Your task to perform on an android device: find which apps use the phone's location Image 0: 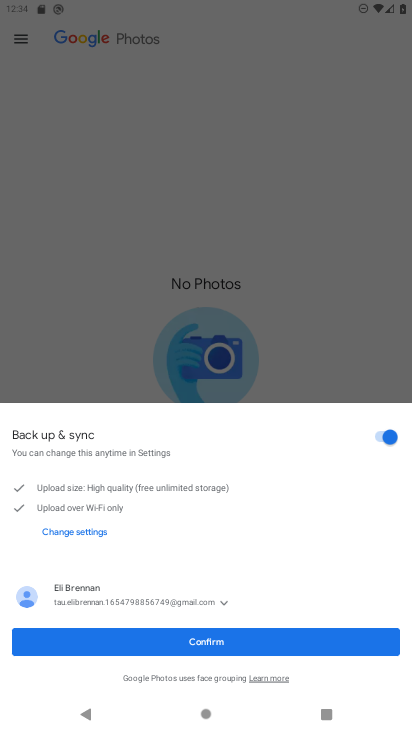
Step 0: press home button
Your task to perform on an android device: find which apps use the phone's location Image 1: 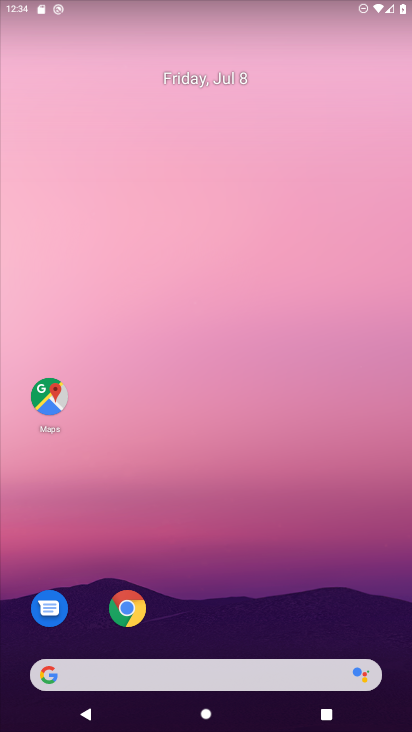
Step 1: drag from (251, 682) to (210, 42)
Your task to perform on an android device: find which apps use the phone's location Image 2: 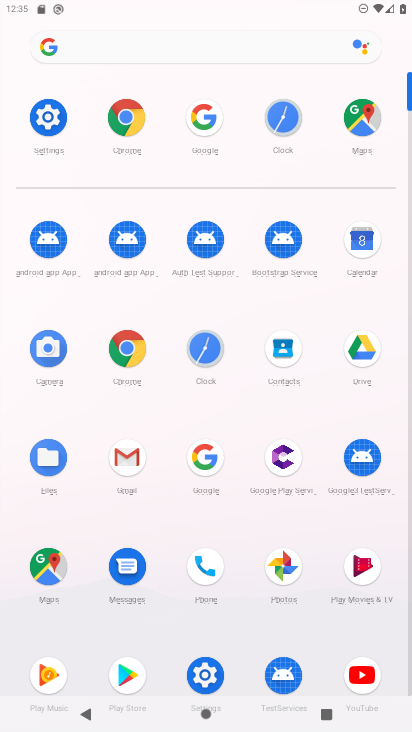
Step 2: click (43, 116)
Your task to perform on an android device: find which apps use the phone's location Image 3: 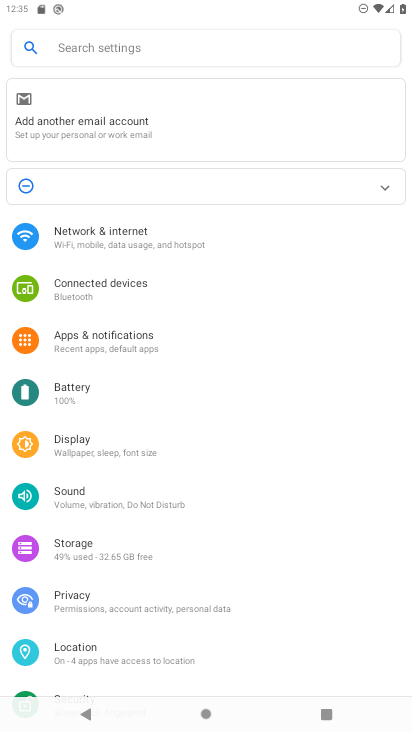
Step 3: click (75, 648)
Your task to perform on an android device: find which apps use the phone's location Image 4: 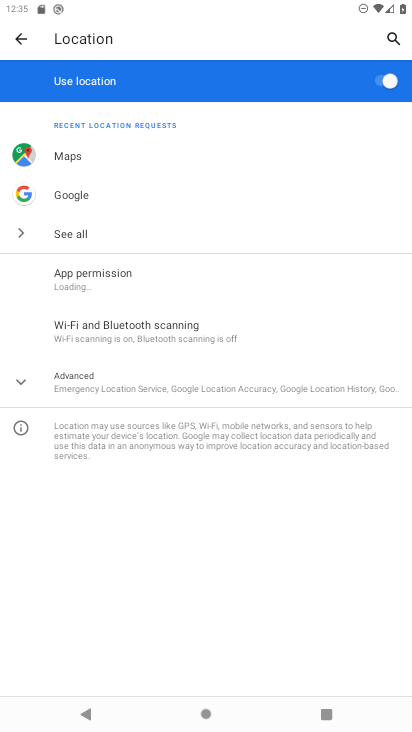
Step 4: click (101, 274)
Your task to perform on an android device: find which apps use the phone's location Image 5: 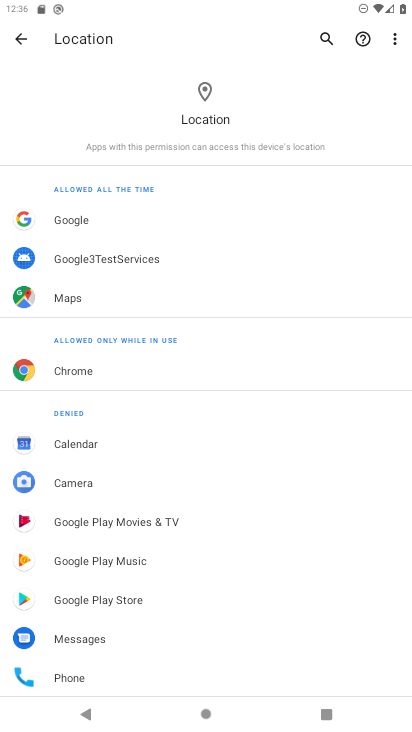
Step 5: task complete